Your task to perform on an android device: turn off location history Image 0: 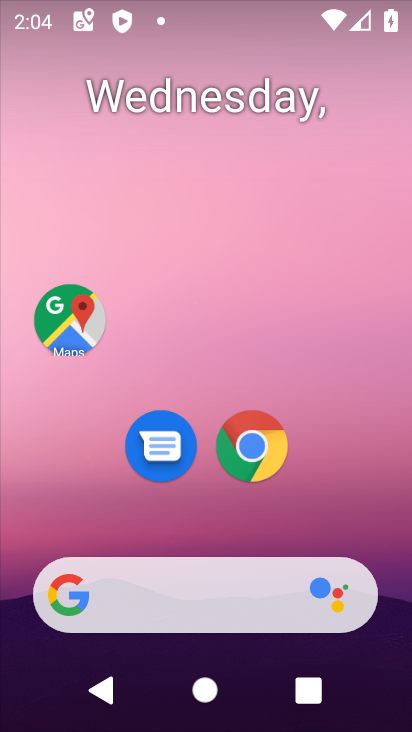
Step 0: drag from (156, 597) to (63, 25)
Your task to perform on an android device: turn off location history Image 1: 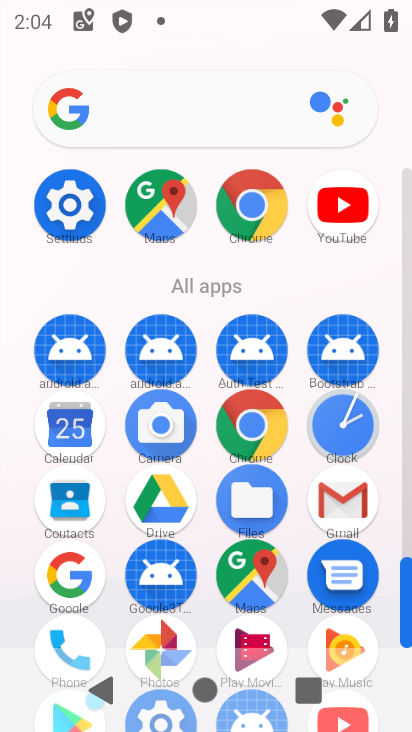
Step 1: click (69, 207)
Your task to perform on an android device: turn off location history Image 2: 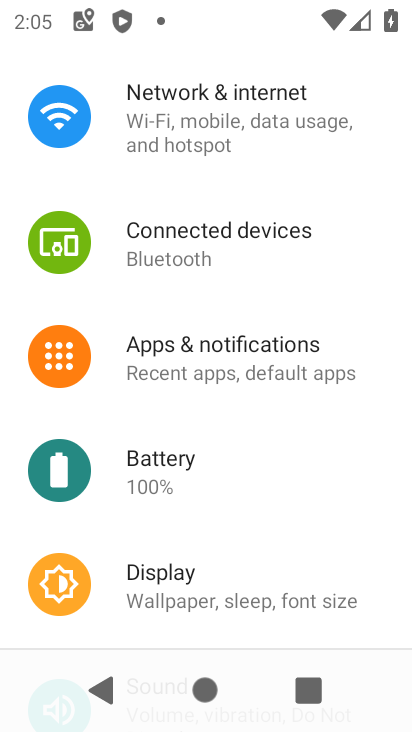
Step 2: drag from (172, 485) to (2, 252)
Your task to perform on an android device: turn off location history Image 3: 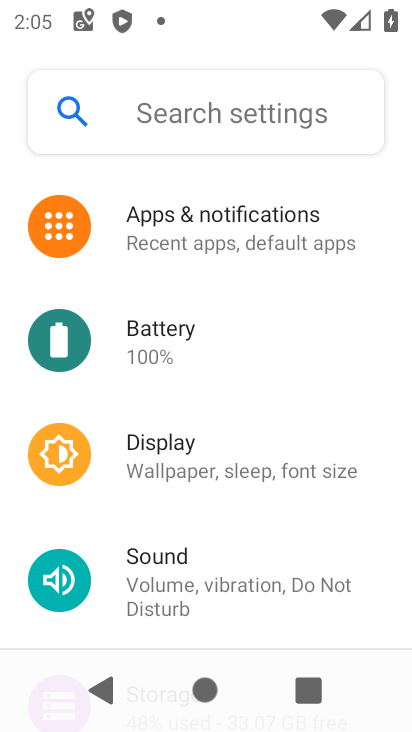
Step 3: drag from (160, 521) to (139, 37)
Your task to perform on an android device: turn off location history Image 4: 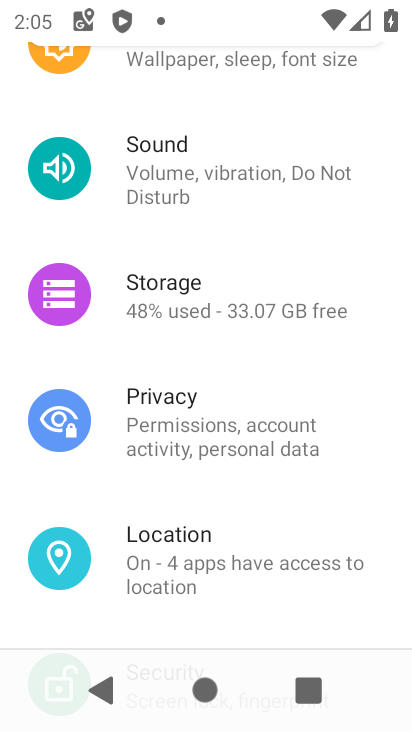
Step 4: click (184, 551)
Your task to perform on an android device: turn off location history Image 5: 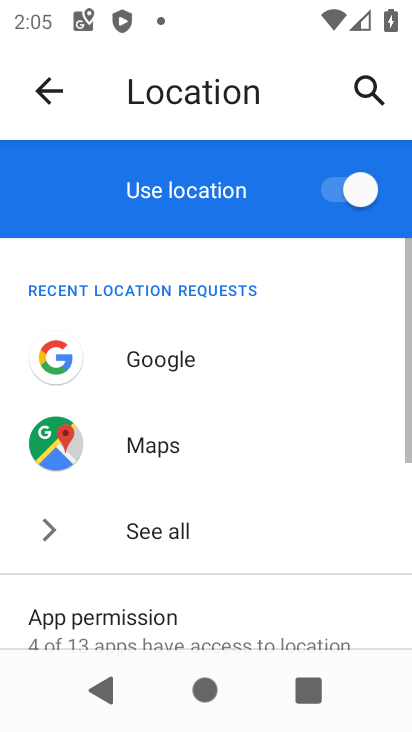
Step 5: drag from (196, 577) to (117, 44)
Your task to perform on an android device: turn off location history Image 6: 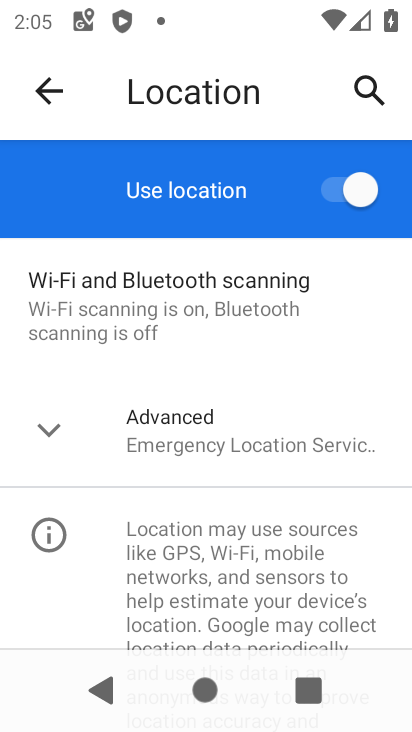
Step 6: click (188, 424)
Your task to perform on an android device: turn off location history Image 7: 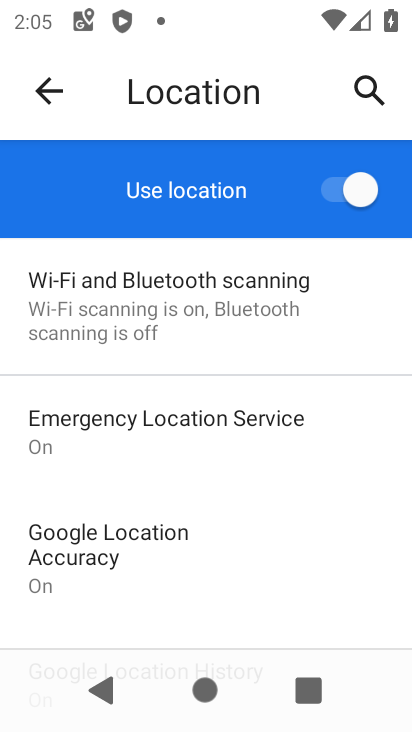
Step 7: drag from (180, 529) to (182, 55)
Your task to perform on an android device: turn off location history Image 8: 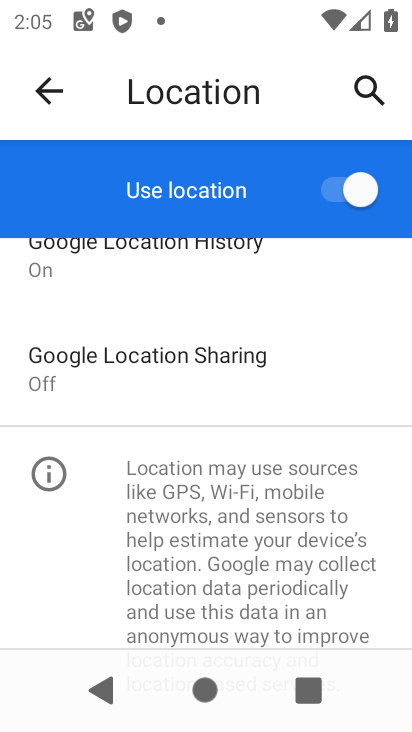
Step 8: click (116, 244)
Your task to perform on an android device: turn off location history Image 9: 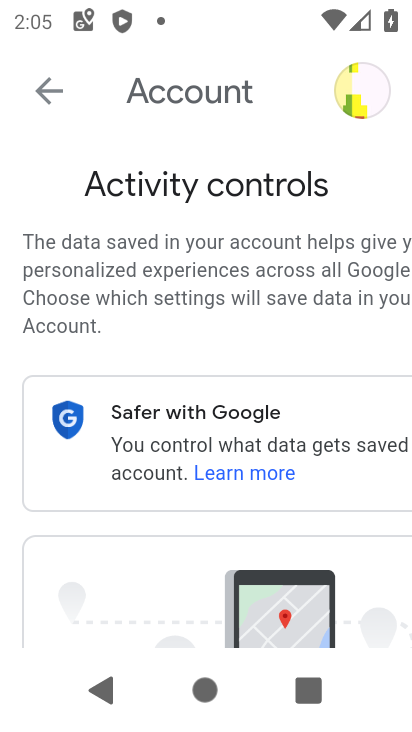
Step 9: drag from (369, 515) to (32, 82)
Your task to perform on an android device: turn off location history Image 10: 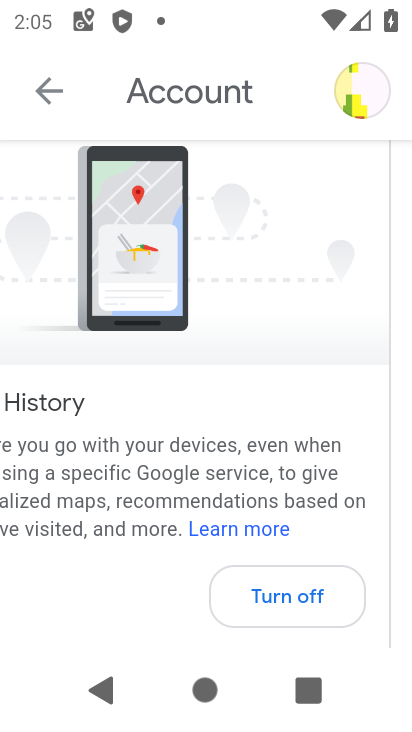
Step 10: click (259, 588)
Your task to perform on an android device: turn off location history Image 11: 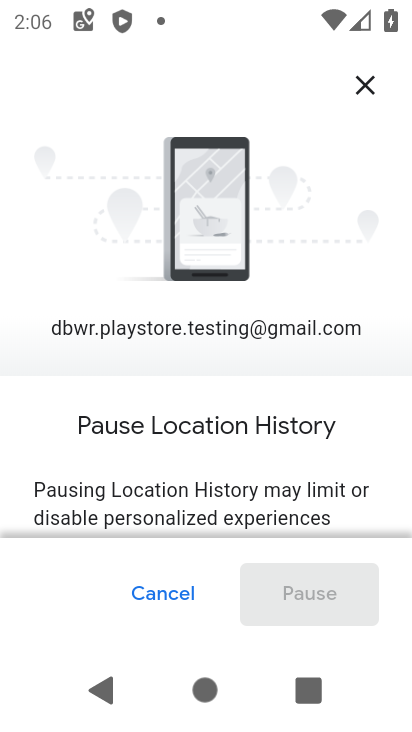
Step 11: drag from (329, 496) to (181, 6)
Your task to perform on an android device: turn off location history Image 12: 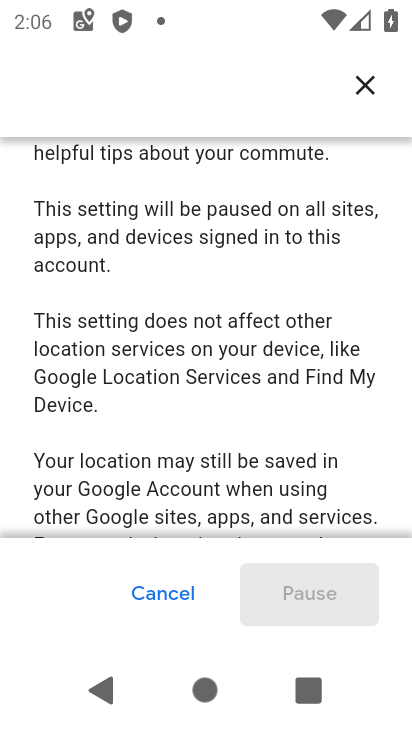
Step 12: drag from (304, 460) to (4, 312)
Your task to perform on an android device: turn off location history Image 13: 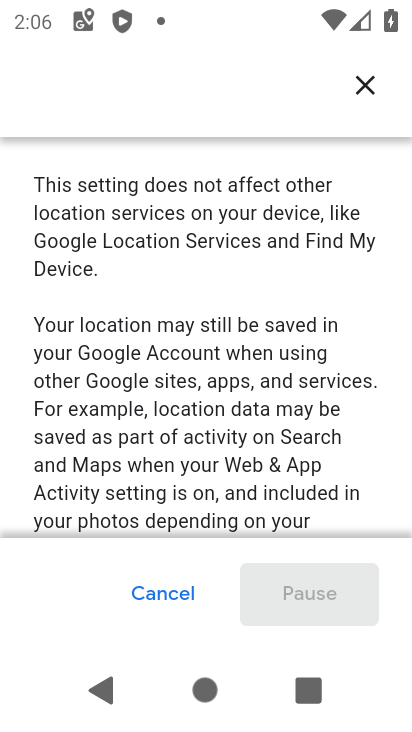
Step 13: drag from (302, 501) to (192, 5)
Your task to perform on an android device: turn off location history Image 14: 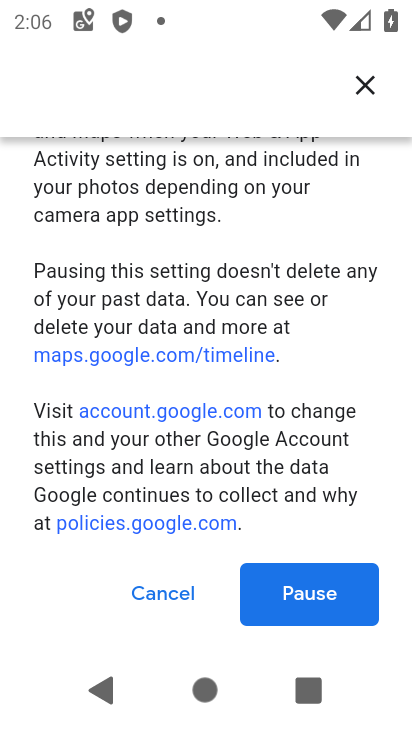
Step 14: click (317, 592)
Your task to perform on an android device: turn off location history Image 15: 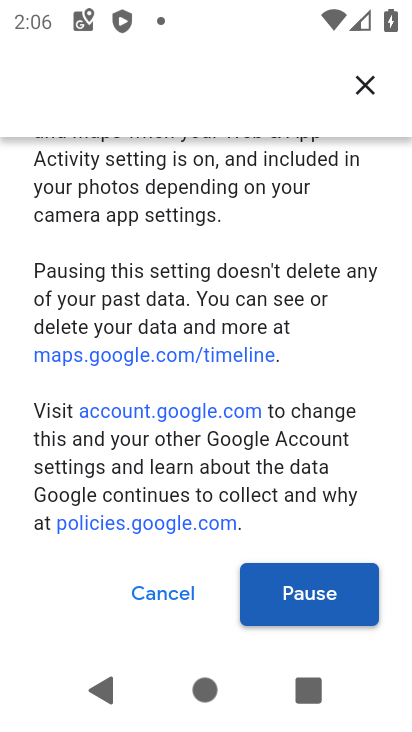
Step 15: click (358, 593)
Your task to perform on an android device: turn off location history Image 16: 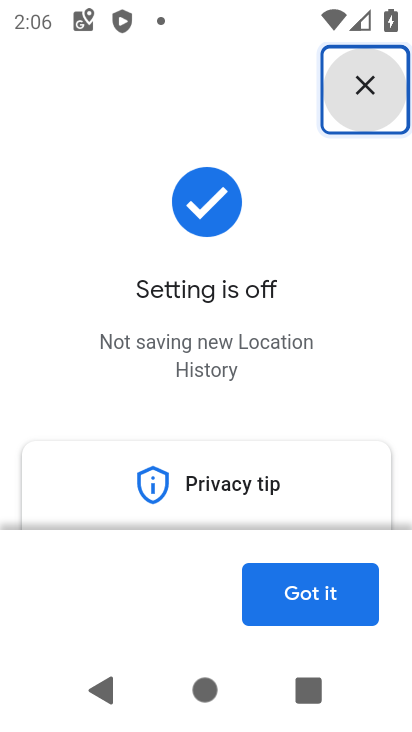
Step 16: click (279, 575)
Your task to perform on an android device: turn off location history Image 17: 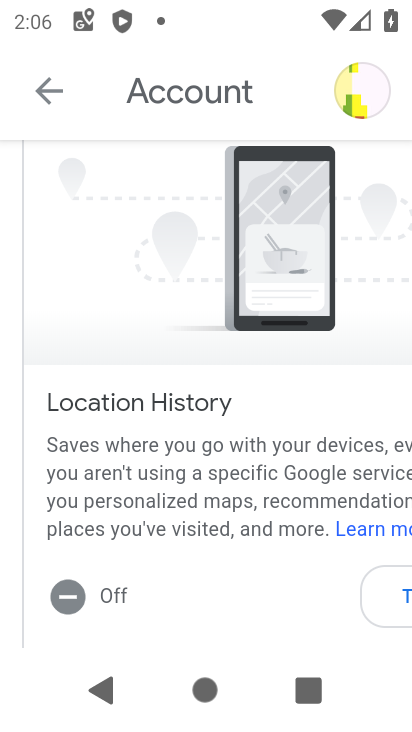
Step 17: task complete